Your task to perform on an android device: Open CNN.com Image 0: 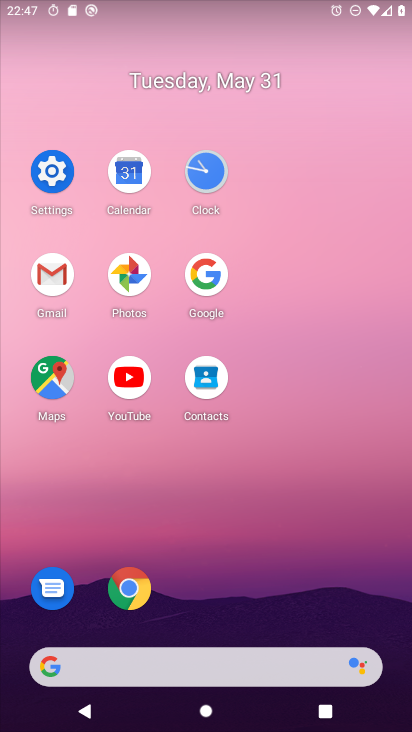
Step 0: click (138, 594)
Your task to perform on an android device: Open CNN.com Image 1: 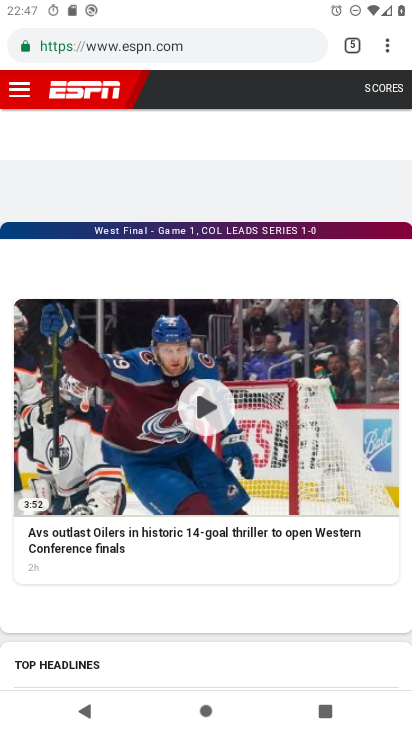
Step 1: click (352, 44)
Your task to perform on an android device: Open CNN.com Image 2: 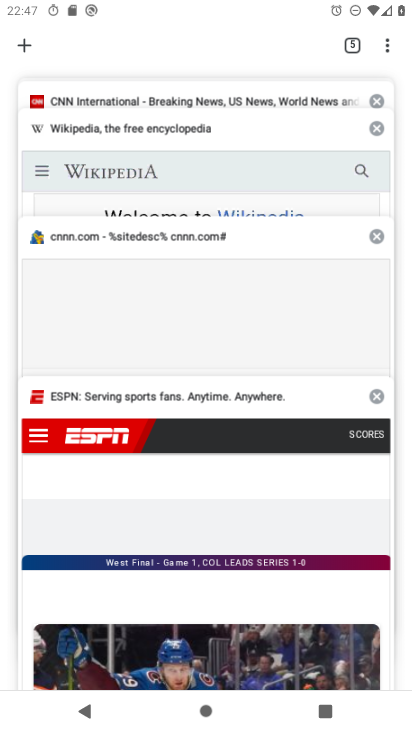
Step 2: drag from (198, 501) to (191, 131)
Your task to perform on an android device: Open CNN.com Image 3: 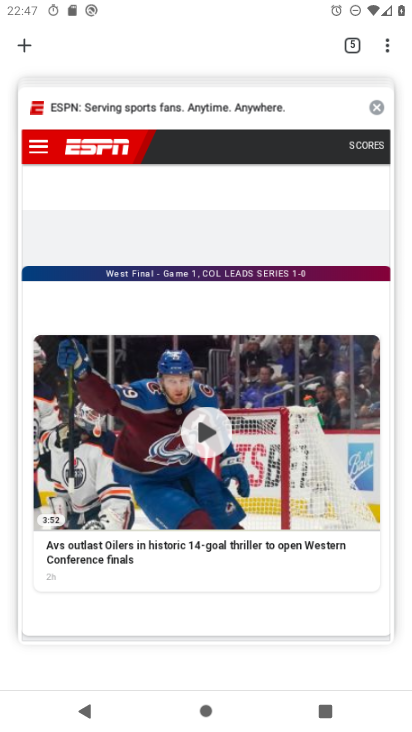
Step 3: drag from (199, 198) to (212, 525)
Your task to perform on an android device: Open CNN.com Image 4: 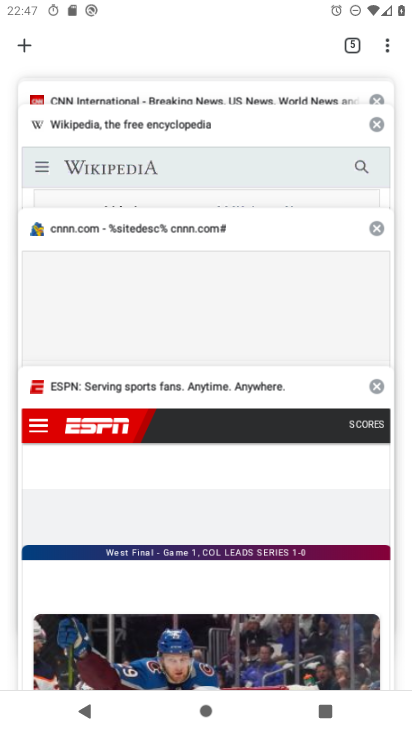
Step 4: drag from (149, 176) to (181, 458)
Your task to perform on an android device: Open CNN.com Image 5: 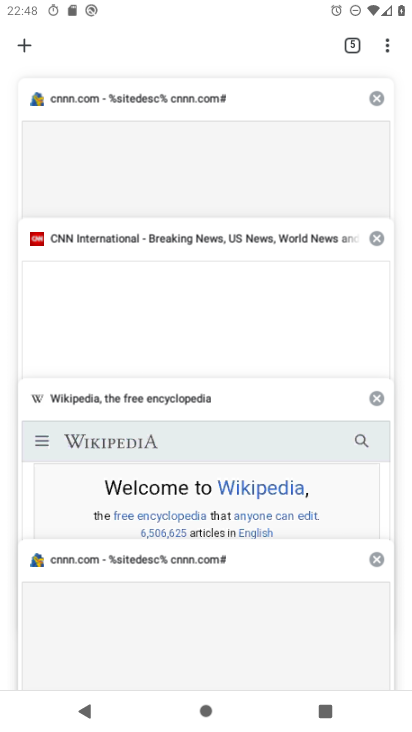
Step 5: click (198, 278)
Your task to perform on an android device: Open CNN.com Image 6: 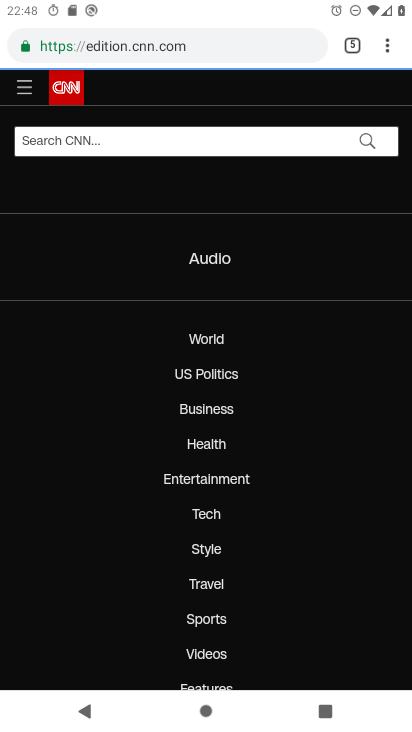
Step 6: task complete